Your task to perform on an android device: turn smart compose on in the gmail app Image 0: 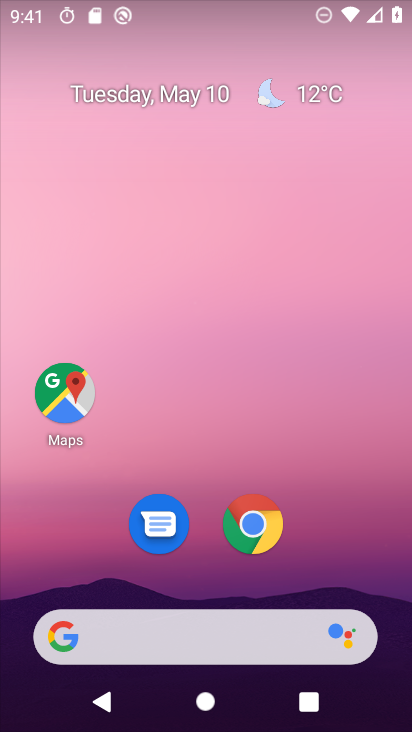
Step 0: drag from (315, 537) to (335, 67)
Your task to perform on an android device: turn smart compose on in the gmail app Image 1: 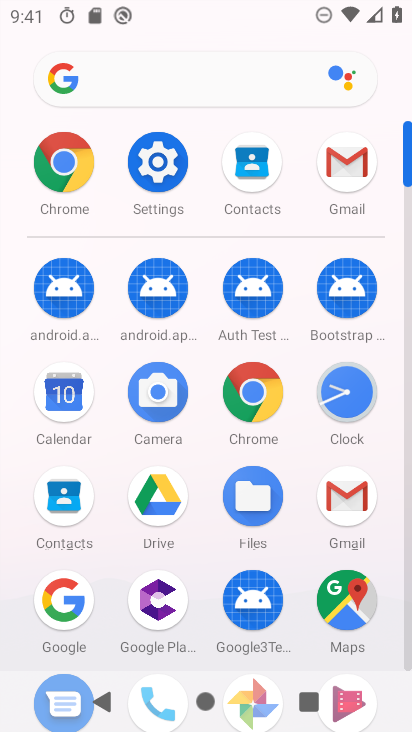
Step 1: click (344, 175)
Your task to perform on an android device: turn smart compose on in the gmail app Image 2: 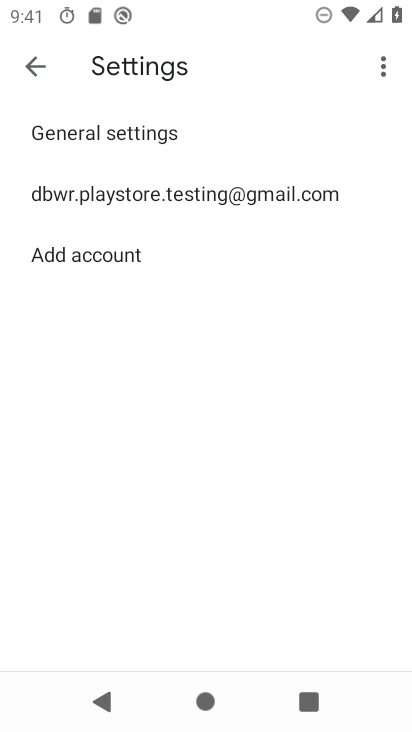
Step 2: click (98, 174)
Your task to perform on an android device: turn smart compose on in the gmail app Image 3: 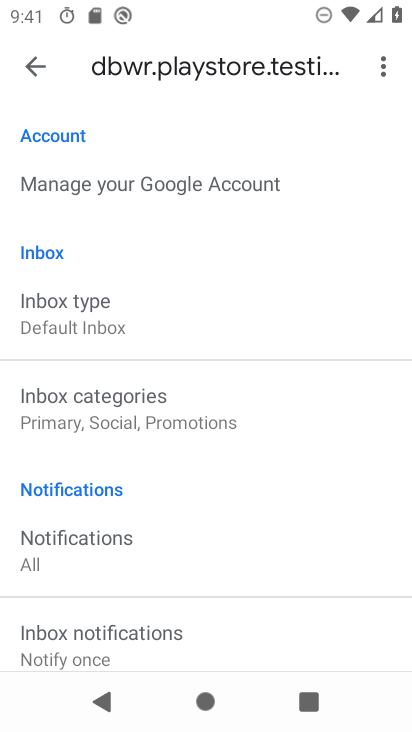
Step 3: task complete